Your task to perform on an android device: When is my next meeting? Image 0: 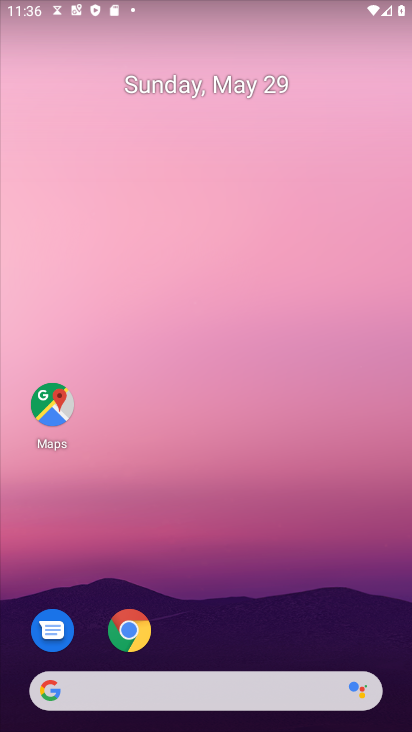
Step 0: drag from (251, 573) to (210, 0)
Your task to perform on an android device: When is my next meeting? Image 1: 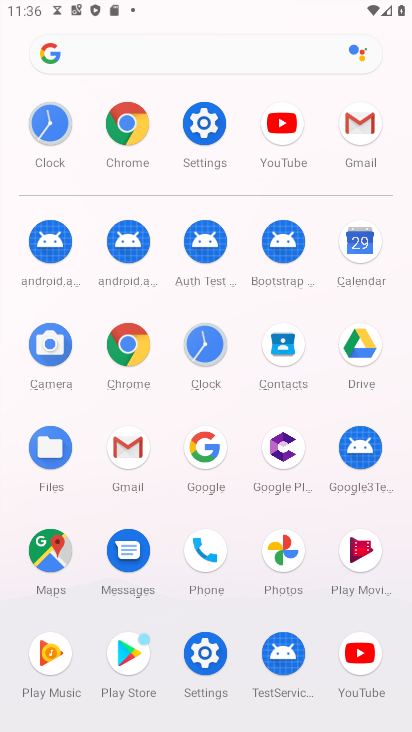
Step 1: click (363, 263)
Your task to perform on an android device: When is my next meeting? Image 2: 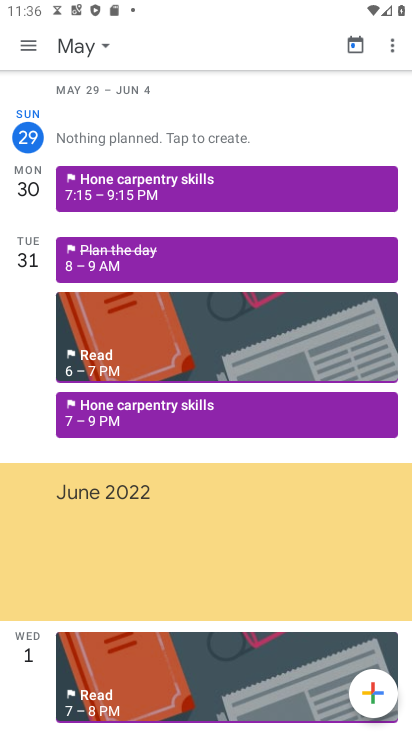
Step 2: task complete